Your task to perform on an android device: What's the latest video from GameSpot eSports? Image 0: 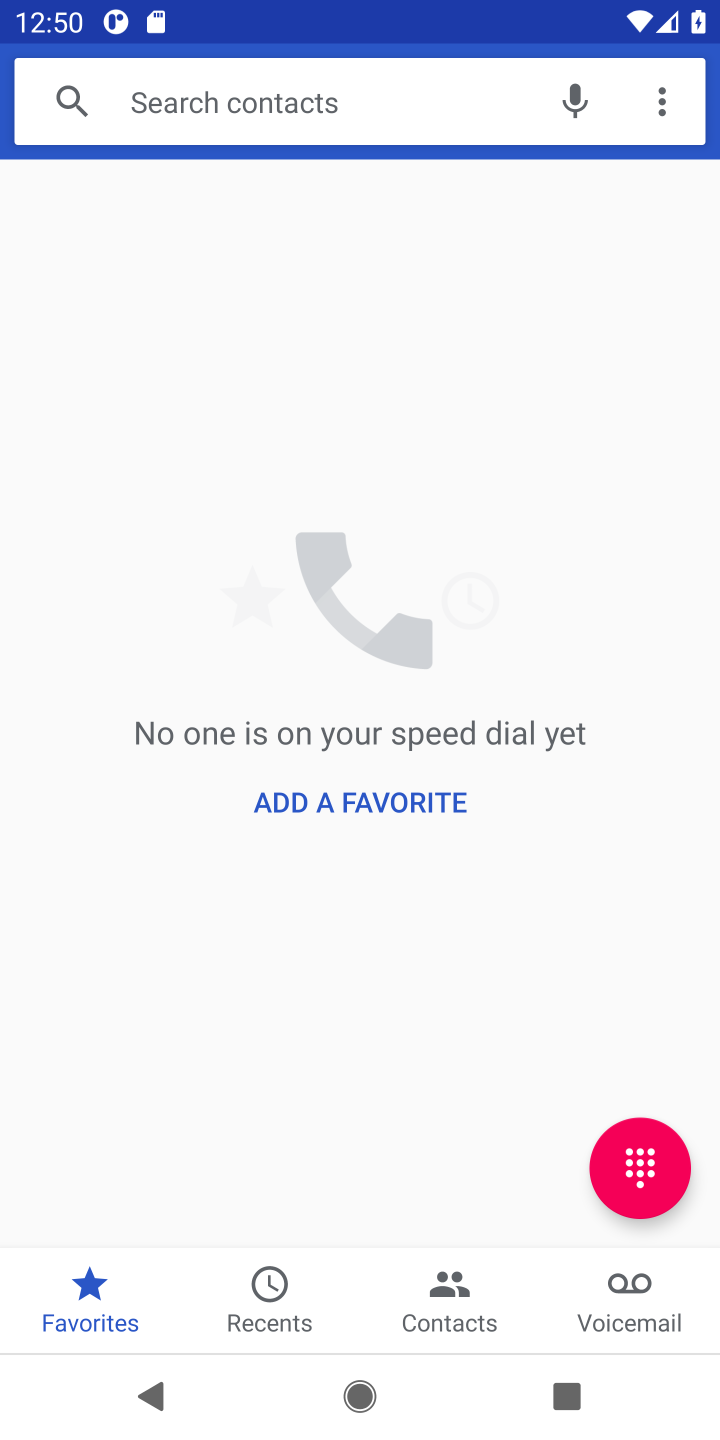
Step 0: press home button
Your task to perform on an android device: What's the latest video from GameSpot eSports? Image 1: 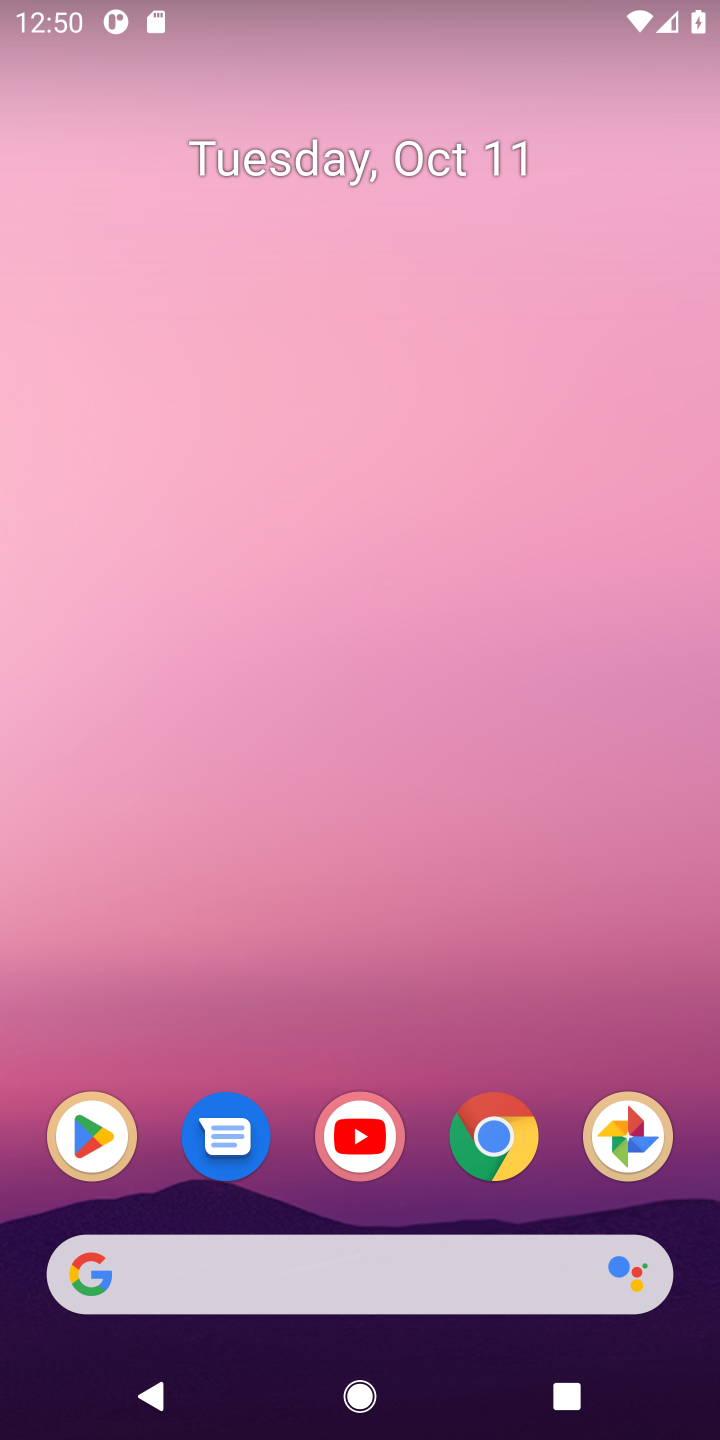
Step 1: click (429, 1265)
Your task to perform on an android device: What's the latest video from GameSpot eSports? Image 2: 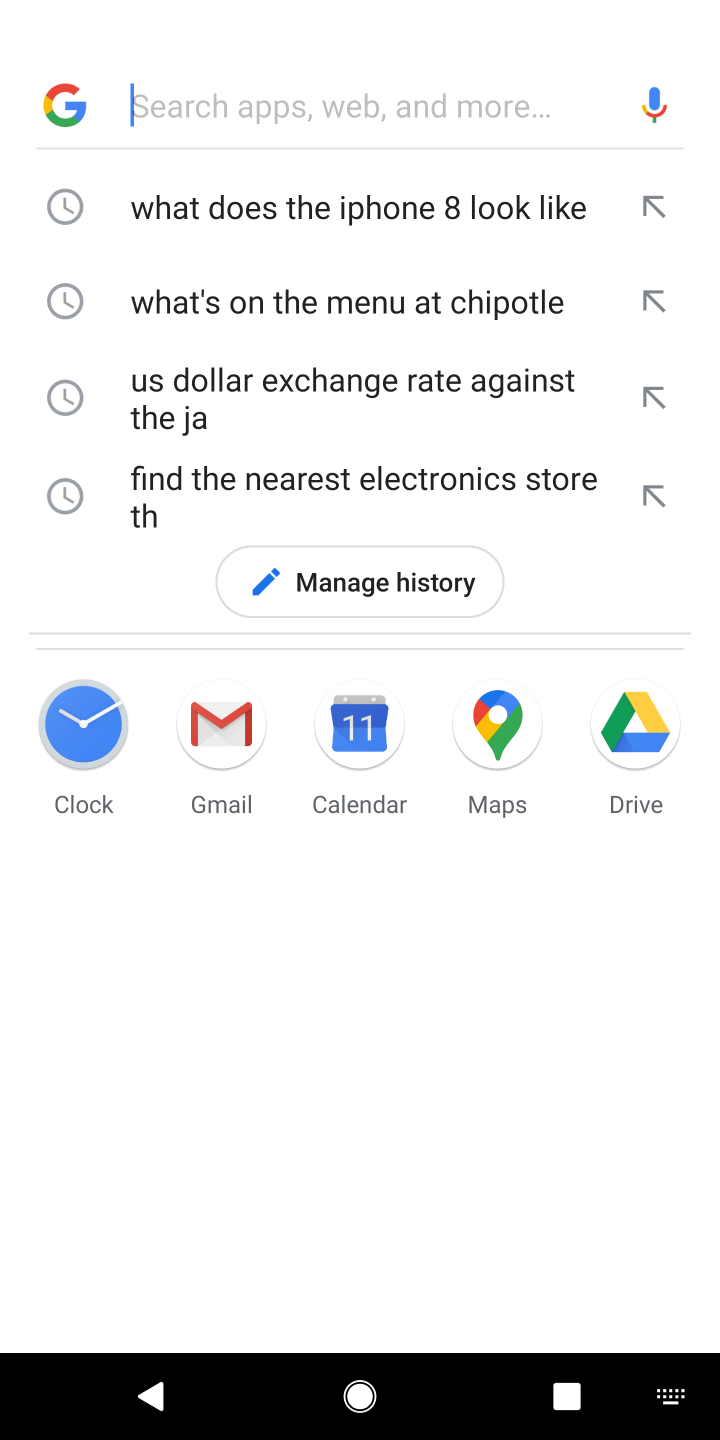
Step 2: press enter
Your task to perform on an android device: What's the latest video from GameSpot eSports? Image 3: 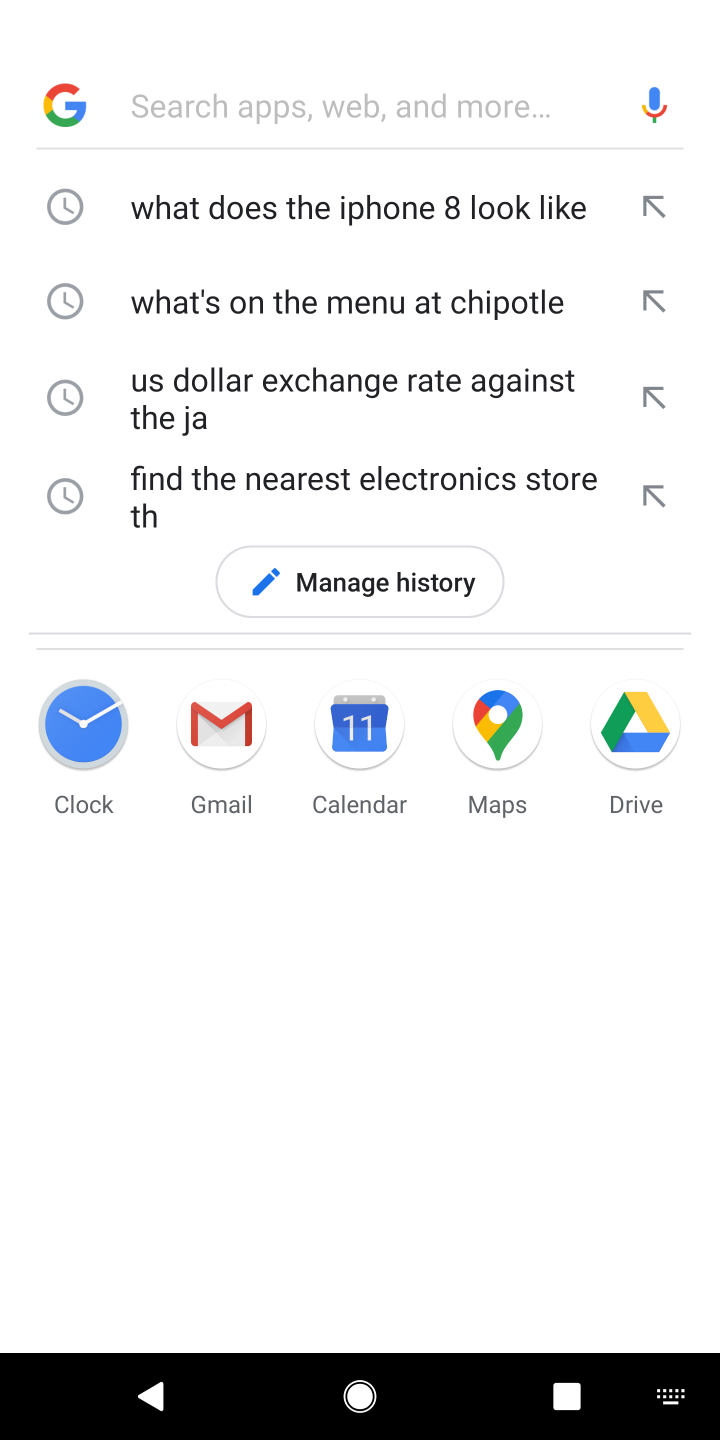
Step 3: type "What's the latest video from GameSpot eSports"
Your task to perform on an android device: What's the latest video from GameSpot eSports? Image 4: 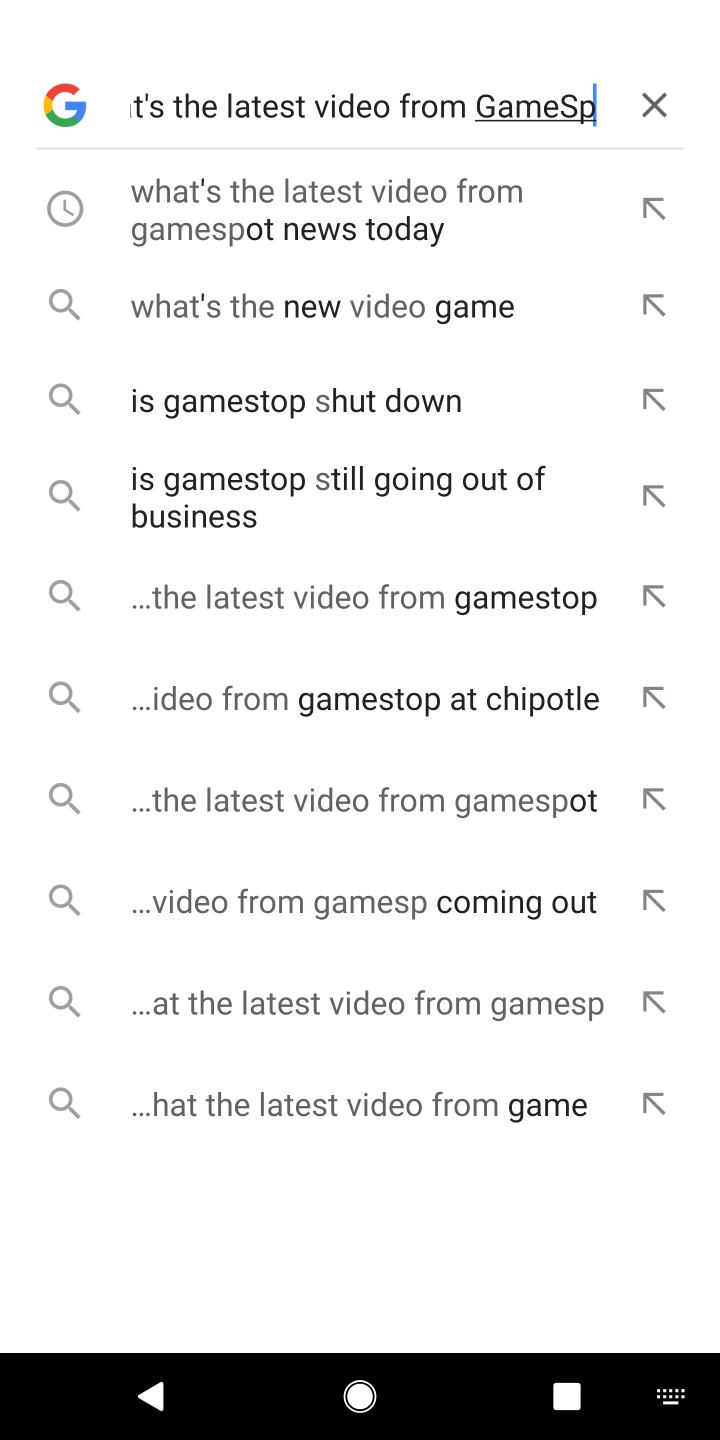
Step 4: press enter
Your task to perform on an android device: What's the latest video from GameSpot eSports? Image 5: 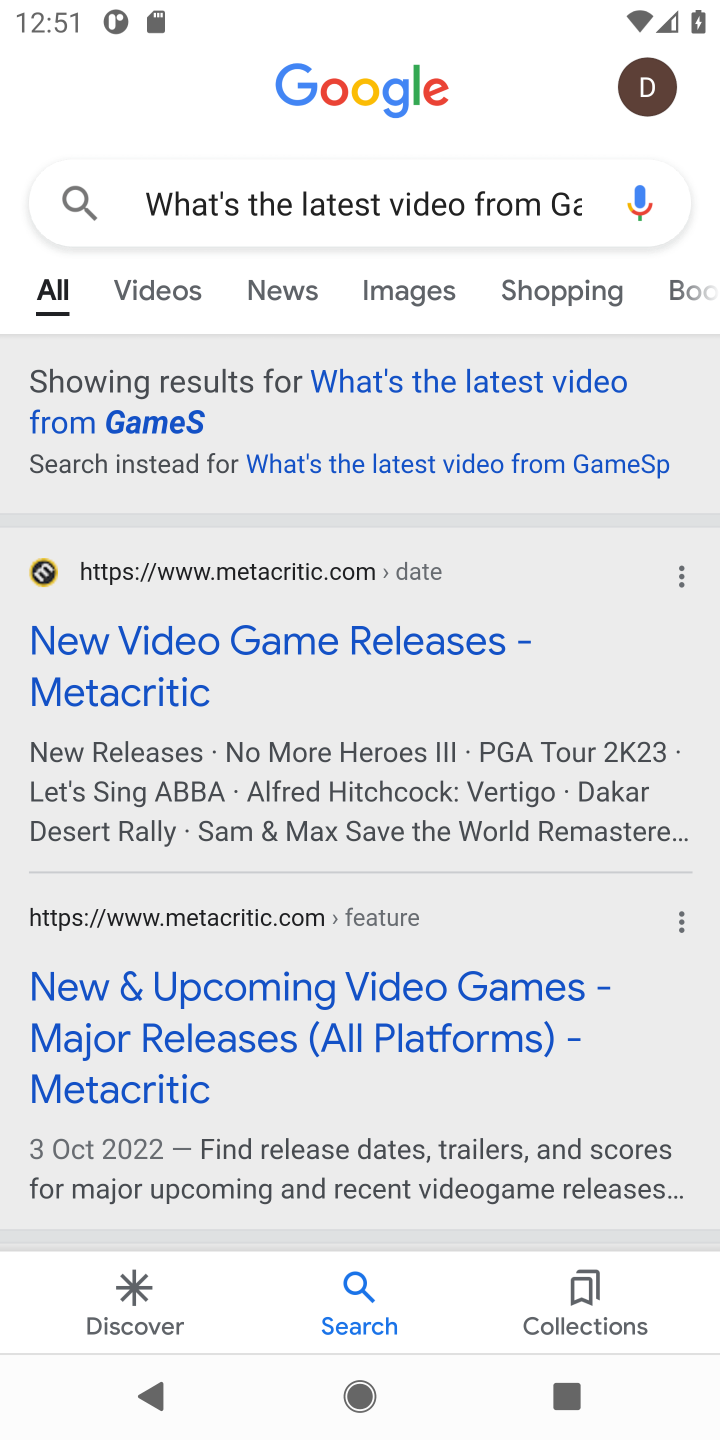
Step 5: click (264, 627)
Your task to perform on an android device: What's the latest video from GameSpot eSports? Image 6: 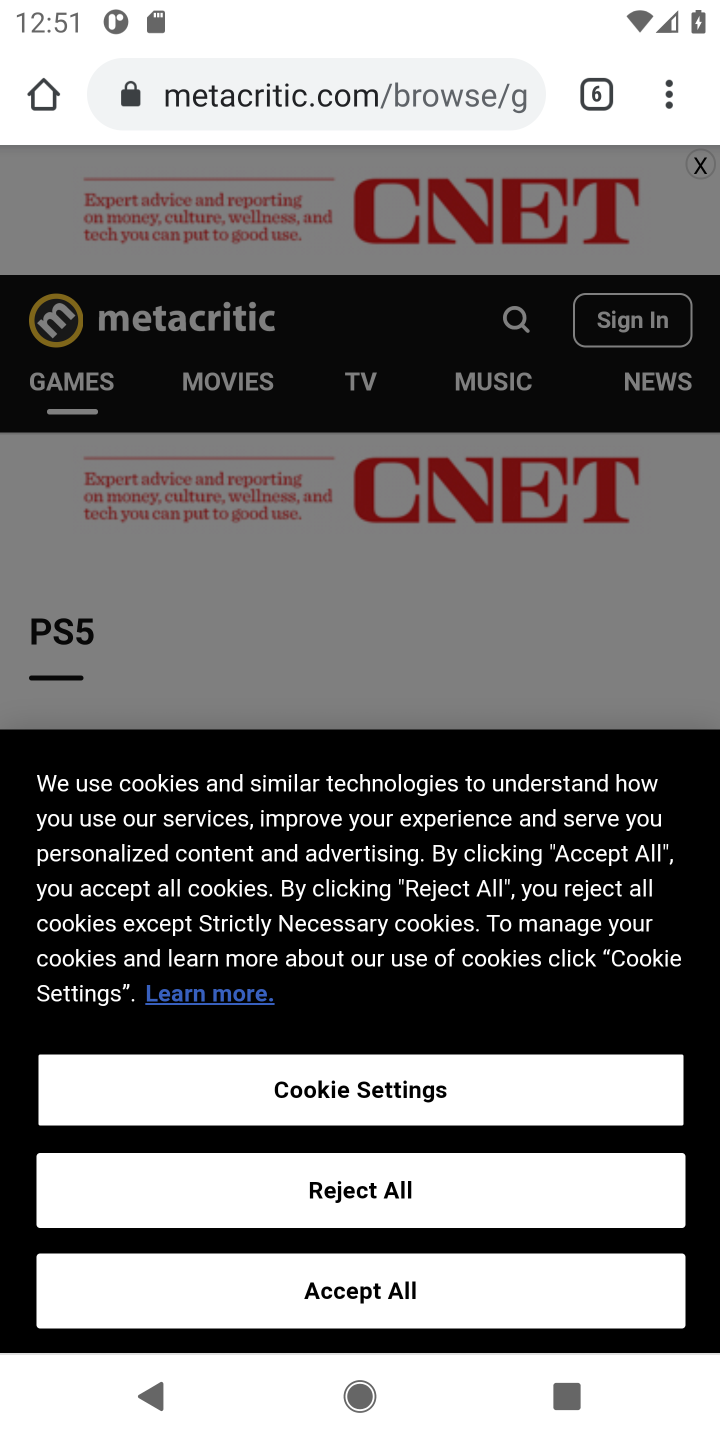
Step 6: click (440, 1299)
Your task to perform on an android device: What's the latest video from GameSpot eSports? Image 7: 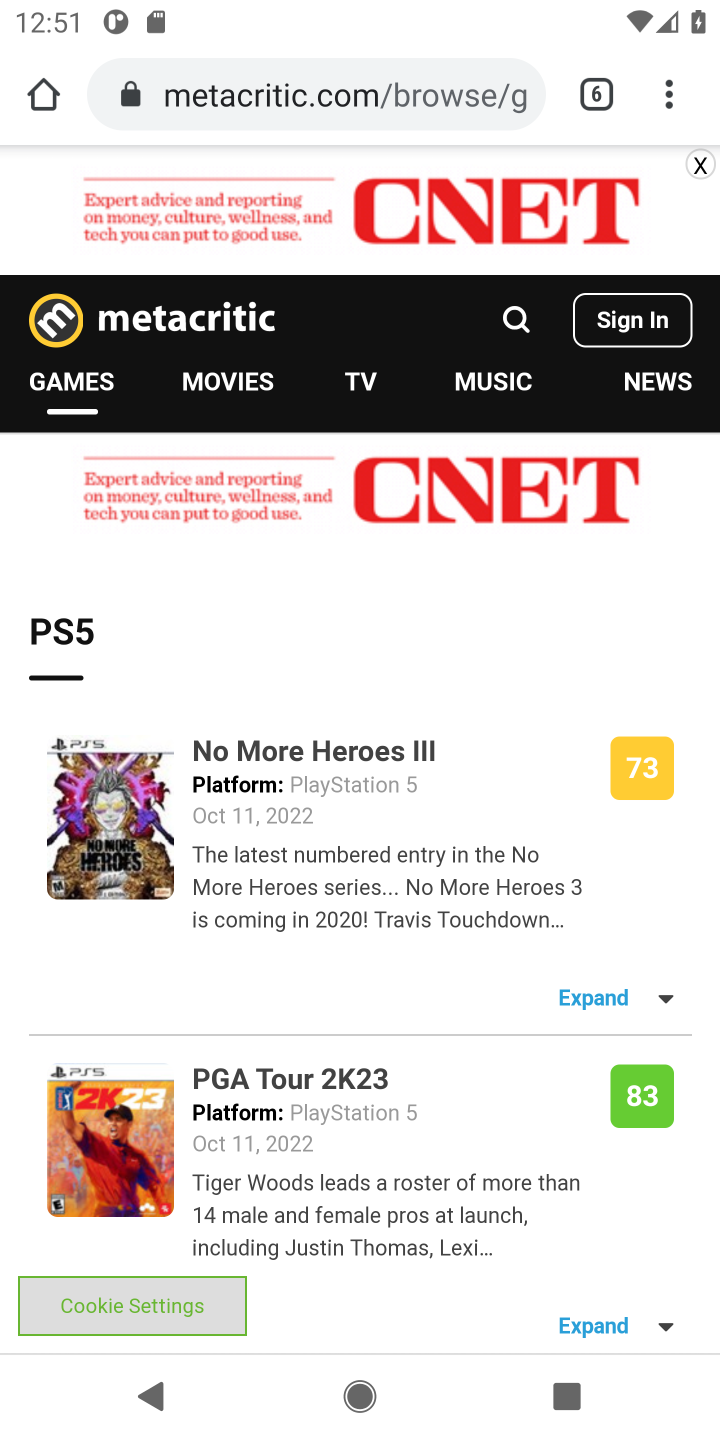
Step 7: task complete